Your task to perform on an android device: change text size in settings app Image 0: 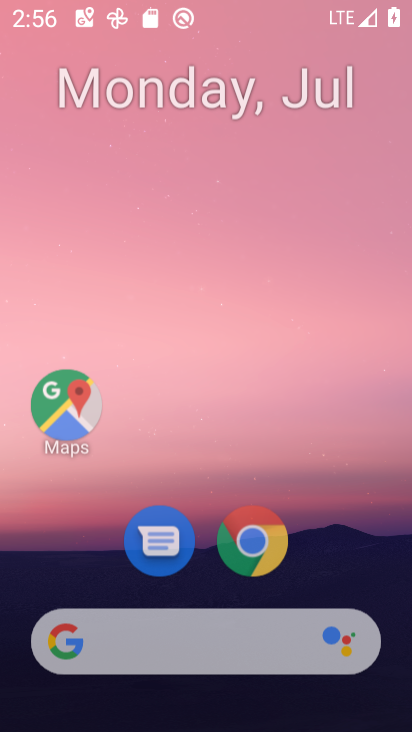
Step 0: press home button
Your task to perform on an android device: change text size in settings app Image 1: 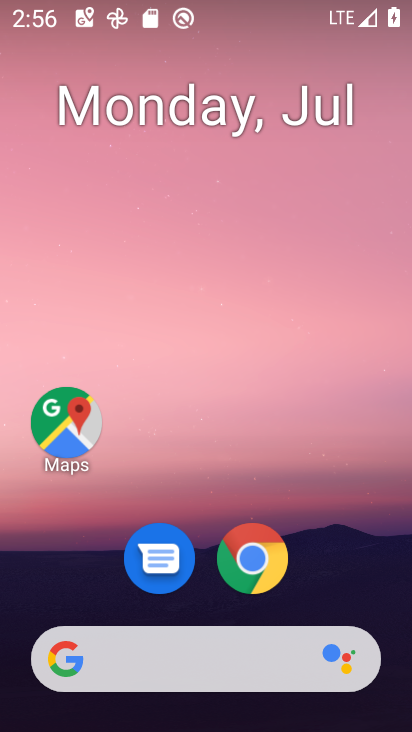
Step 1: drag from (367, 586) to (372, 86)
Your task to perform on an android device: change text size in settings app Image 2: 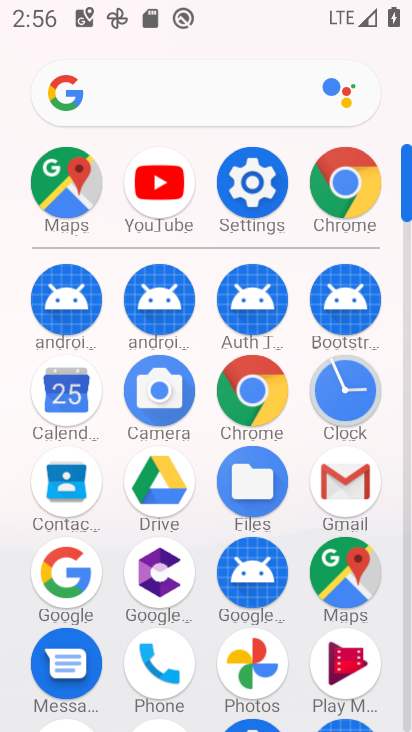
Step 2: click (261, 196)
Your task to perform on an android device: change text size in settings app Image 3: 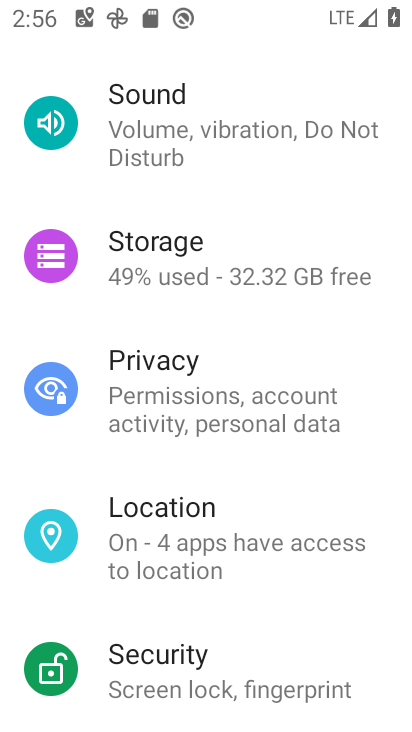
Step 3: drag from (356, 179) to (370, 281)
Your task to perform on an android device: change text size in settings app Image 4: 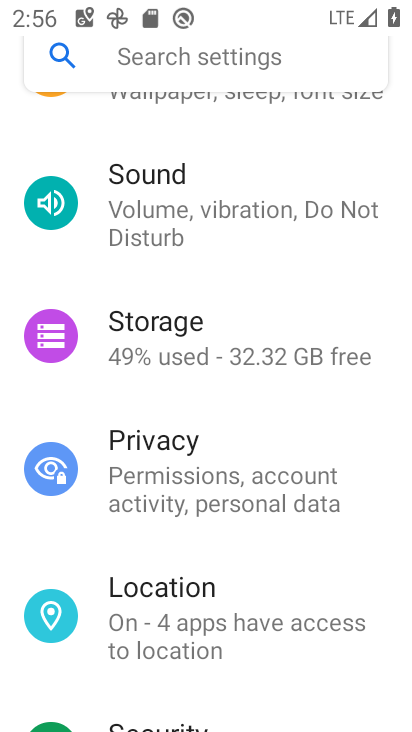
Step 4: drag from (364, 133) to (360, 295)
Your task to perform on an android device: change text size in settings app Image 5: 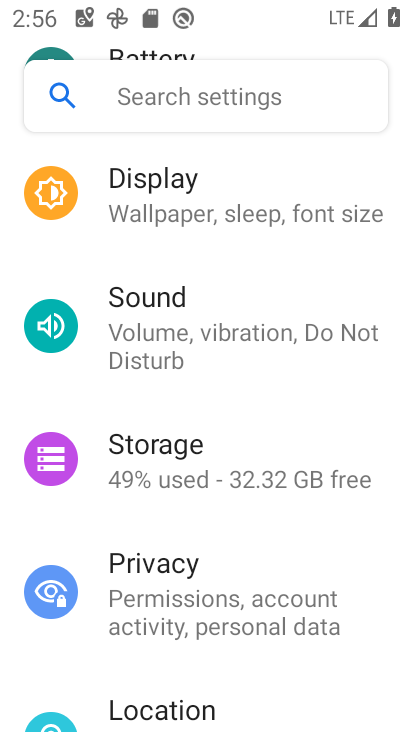
Step 5: drag from (356, 193) to (352, 343)
Your task to perform on an android device: change text size in settings app Image 6: 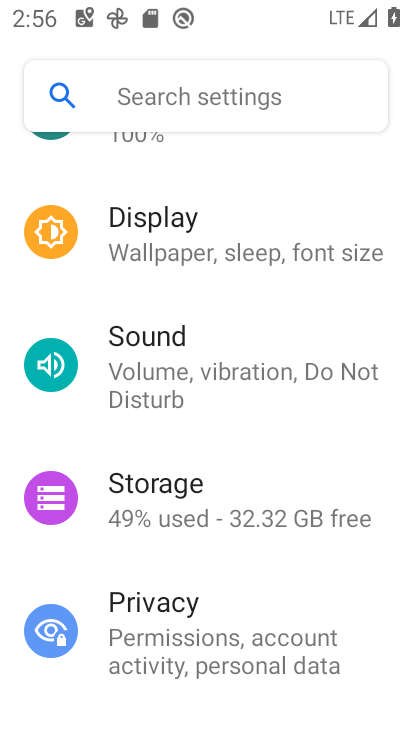
Step 6: click (344, 268)
Your task to perform on an android device: change text size in settings app Image 7: 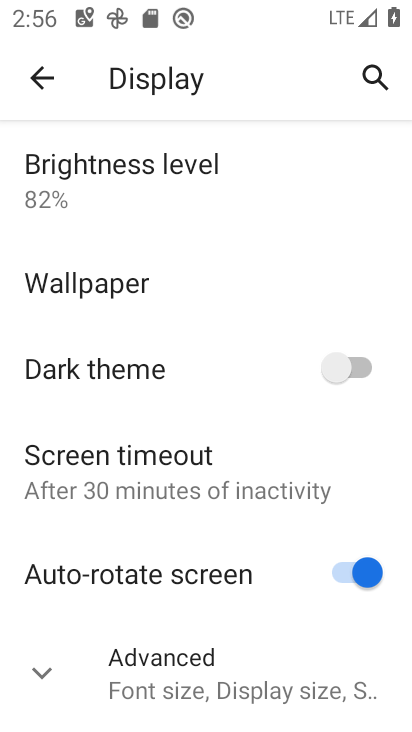
Step 7: click (199, 618)
Your task to perform on an android device: change text size in settings app Image 8: 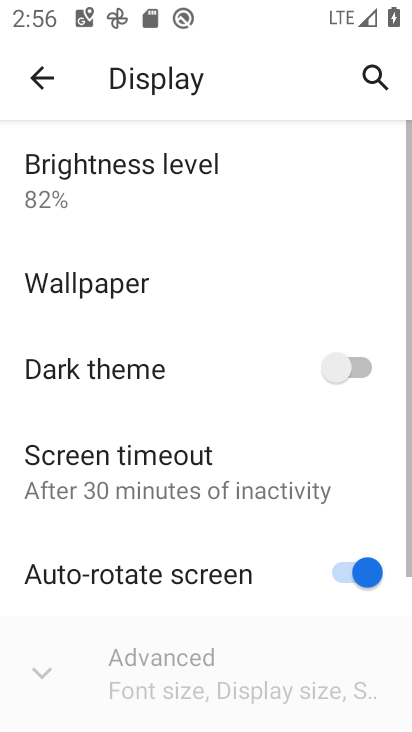
Step 8: drag from (299, 565) to (283, 392)
Your task to perform on an android device: change text size in settings app Image 9: 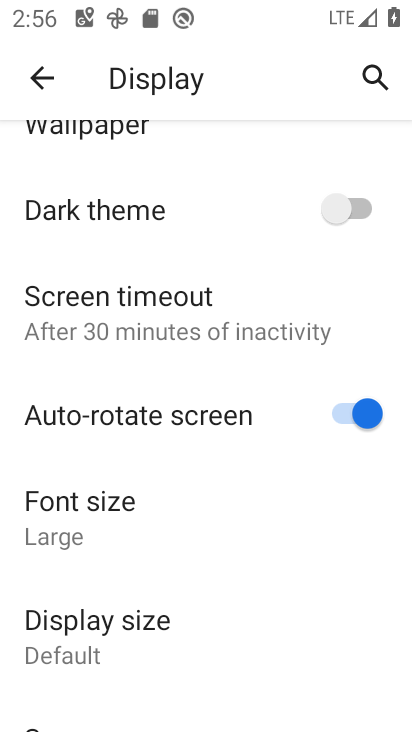
Step 9: drag from (290, 554) to (290, 405)
Your task to perform on an android device: change text size in settings app Image 10: 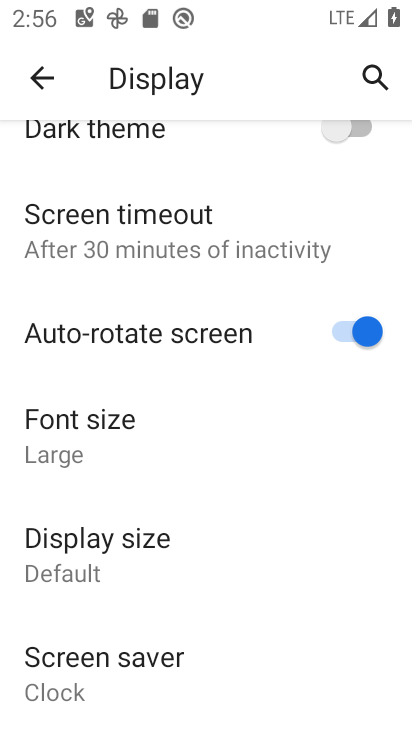
Step 10: click (137, 446)
Your task to perform on an android device: change text size in settings app Image 11: 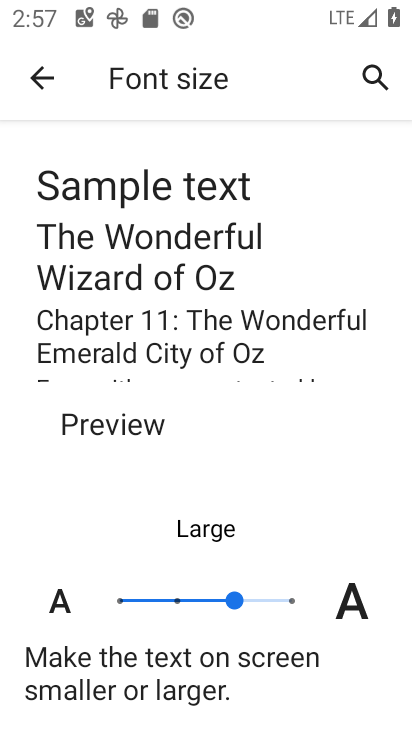
Step 11: click (296, 595)
Your task to perform on an android device: change text size in settings app Image 12: 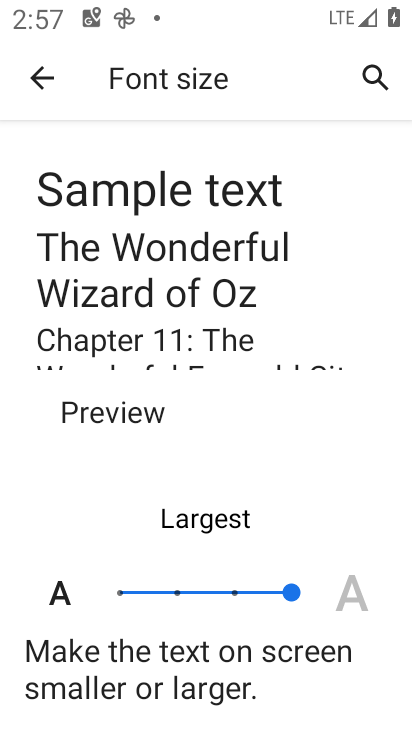
Step 12: task complete